Your task to perform on an android device: Go to Google Image 0: 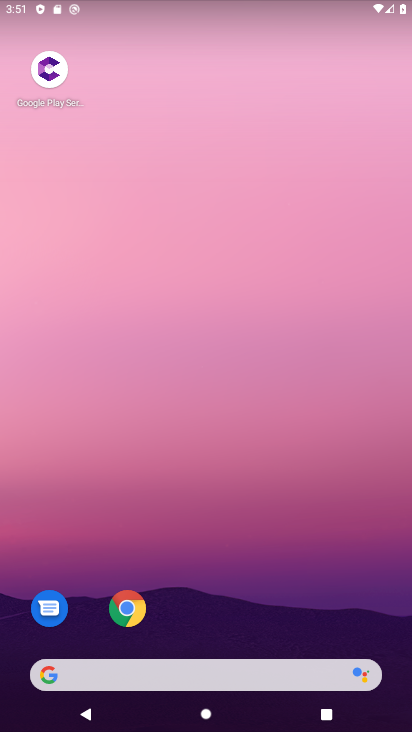
Step 0: drag from (189, 665) to (299, 36)
Your task to perform on an android device: Go to Google Image 1: 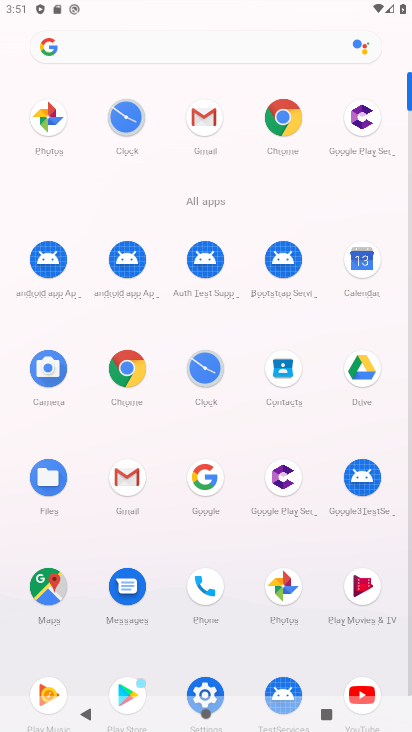
Step 1: click (130, 367)
Your task to perform on an android device: Go to Google Image 2: 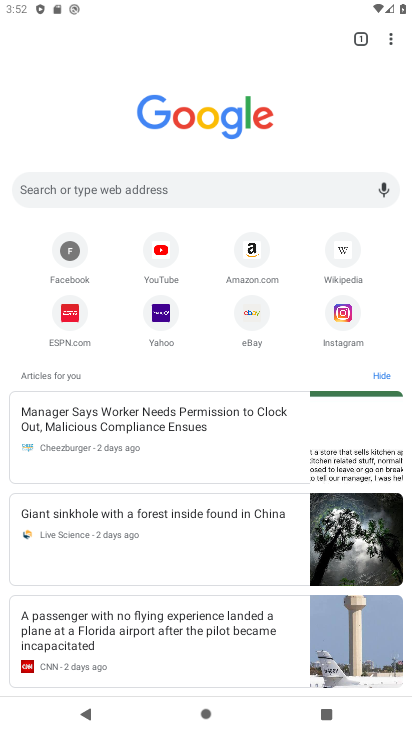
Step 2: task complete